Your task to perform on an android device: Search for Mexican restaurants on Maps Image 0: 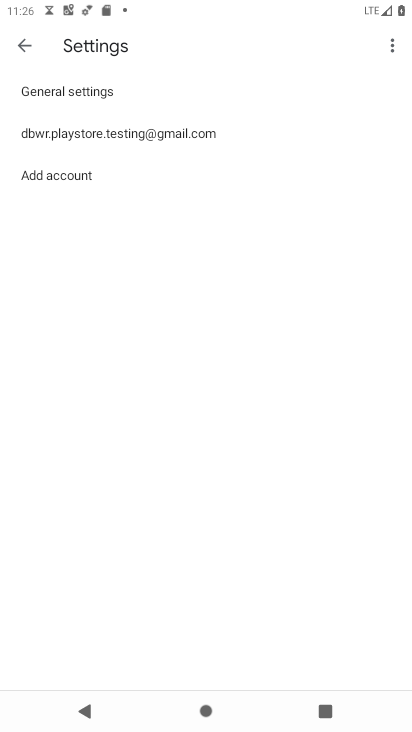
Step 0: press home button
Your task to perform on an android device: Search for Mexican restaurants on Maps Image 1: 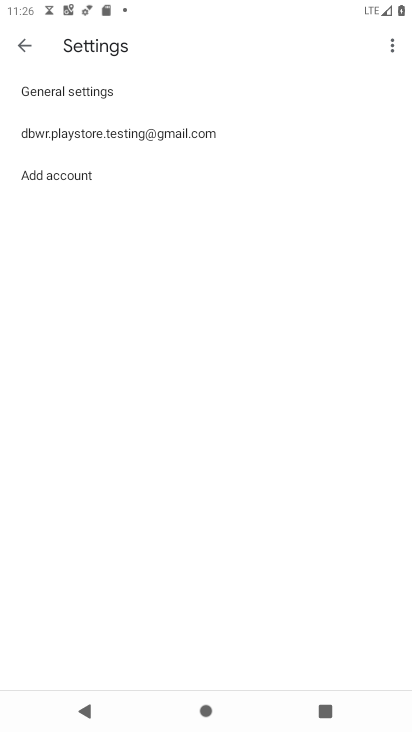
Step 1: press home button
Your task to perform on an android device: Search for Mexican restaurants on Maps Image 2: 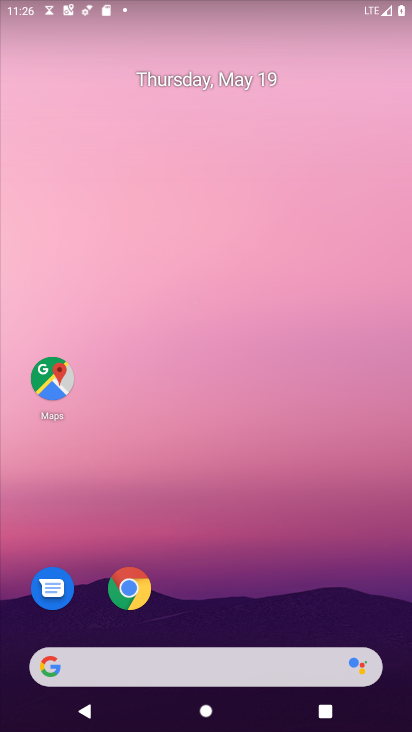
Step 2: click (41, 348)
Your task to perform on an android device: Search for Mexican restaurants on Maps Image 3: 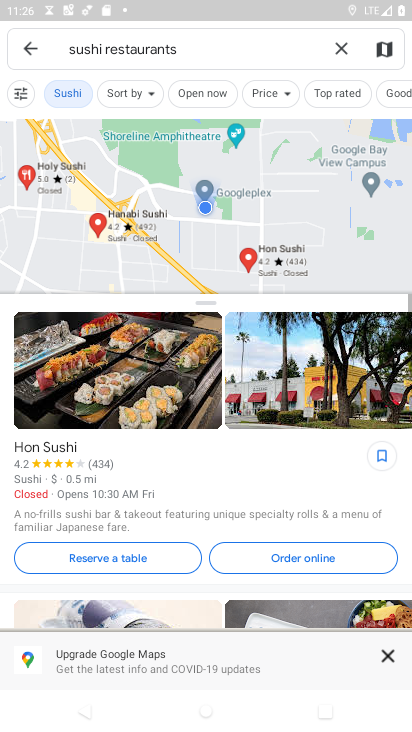
Step 3: click (346, 49)
Your task to perform on an android device: Search for Mexican restaurants on Maps Image 4: 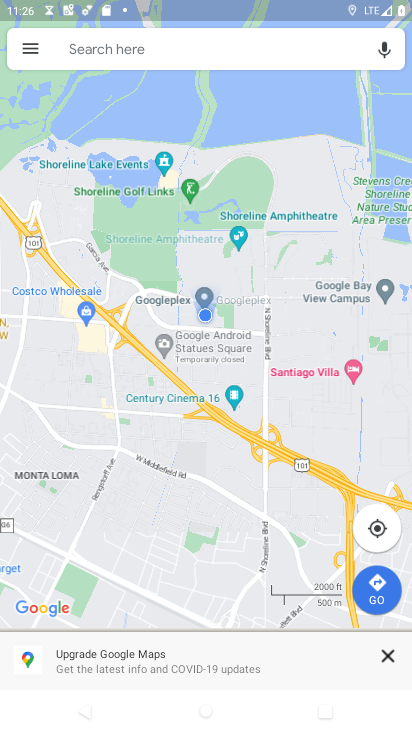
Step 4: click (194, 54)
Your task to perform on an android device: Search for Mexican restaurants on Maps Image 5: 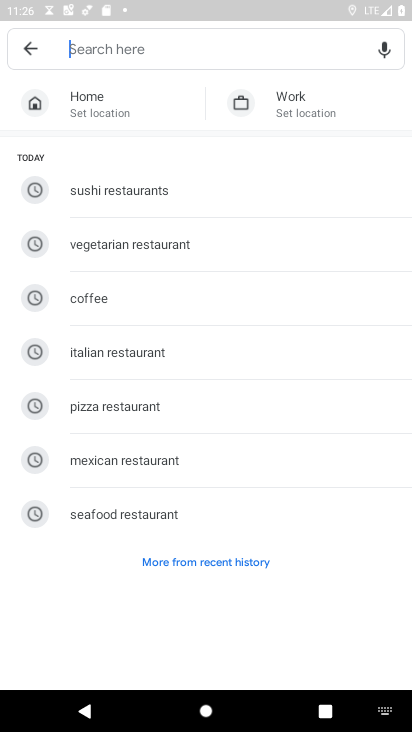
Step 5: click (176, 465)
Your task to perform on an android device: Search for Mexican restaurants on Maps Image 6: 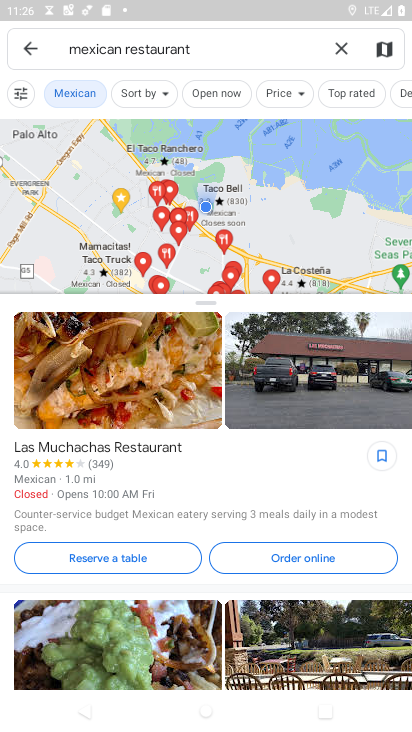
Step 6: task complete